Your task to perform on an android device: turn on translation in the chrome app Image 0: 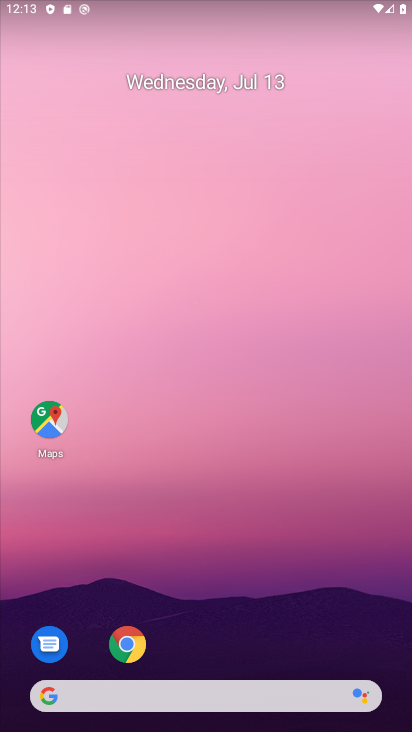
Step 0: drag from (277, 645) to (210, 67)
Your task to perform on an android device: turn on translation in the chrome app Image 1: 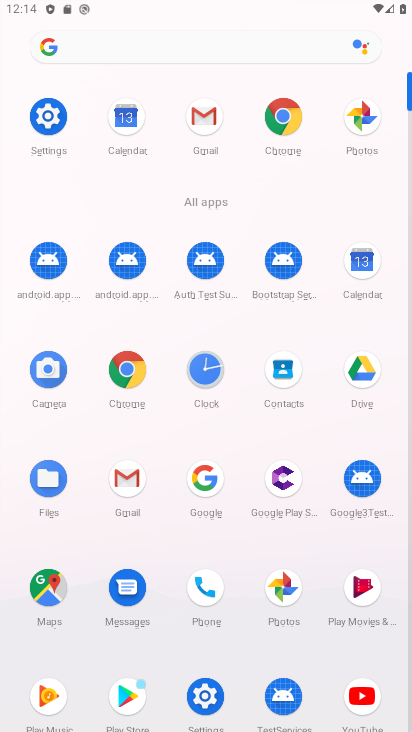
Step 1: click (129, 365)
Your task to perform on an android device: turn on translation in the chrome app Image 2: 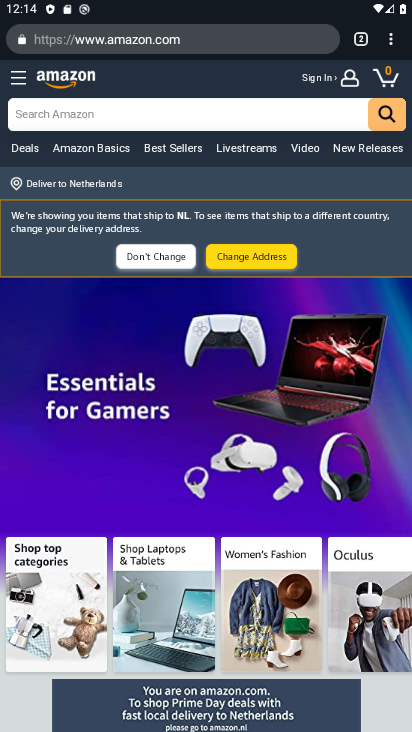
Step 2: drag from (394, 37) to (263, 480)
Your task to perform on an android device: turn on translation in the chrome app Image 3: 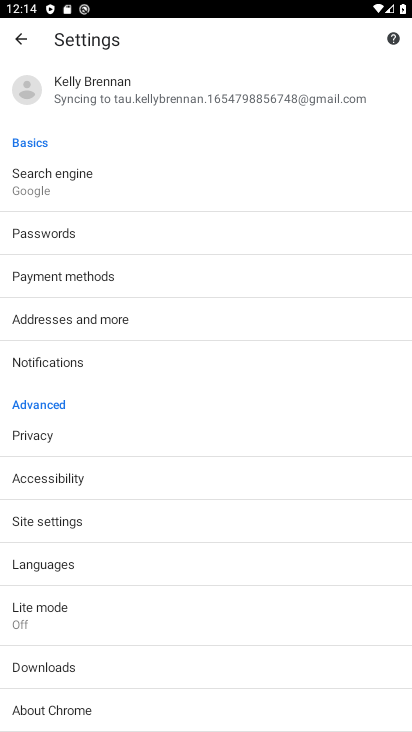
Step 3: click (53, 565)
Your task to perform on an android device: turn on translation in the chrome app Image 4: 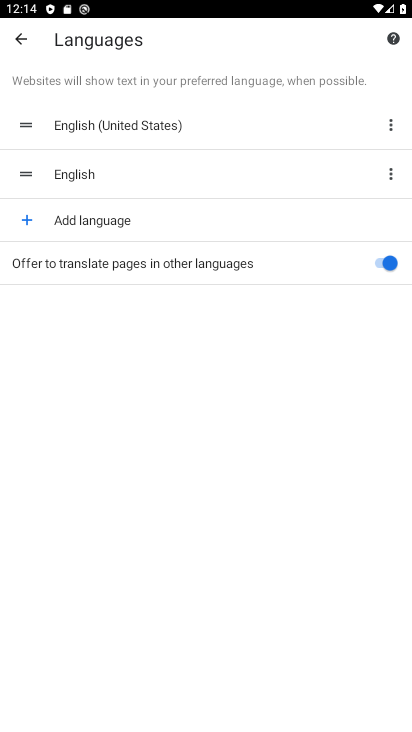
Step 4: task complete